Your task to perform on an android device: see sites visited before in the chrome app Image 0: 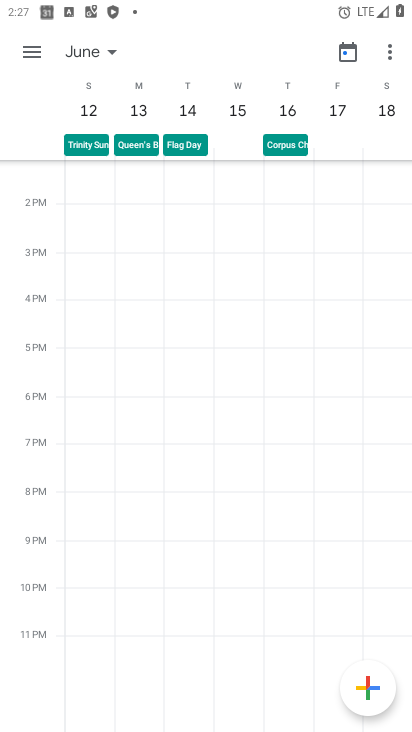
Step 0: press home button
Your task to perform on an android device: see sites visited before in the chrome app Image 1: 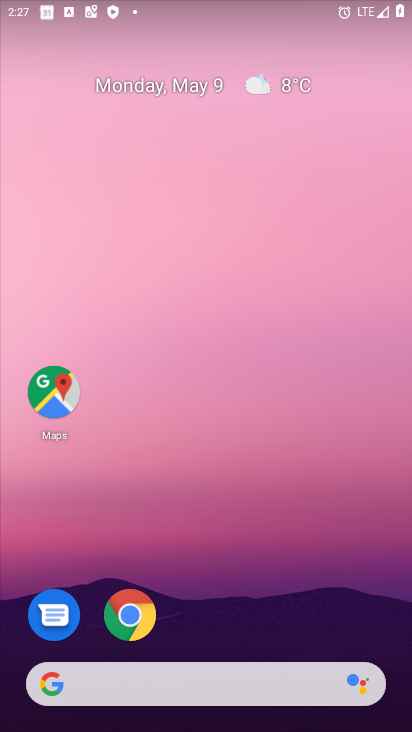
Step 1: click (126, 616)
Your task to perform on an android device: see sites visited before in the chrome app Image 2: 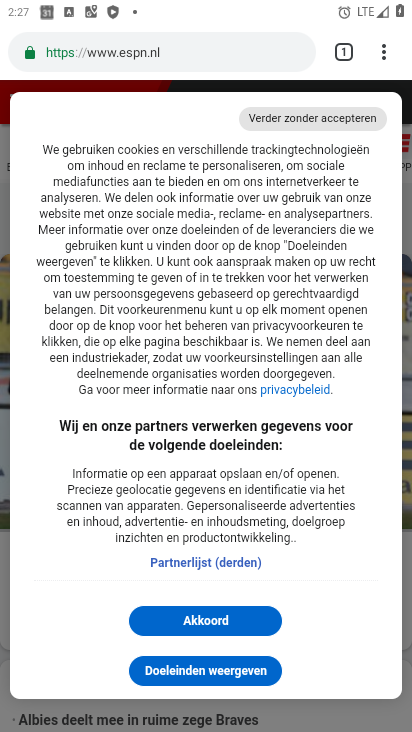
Step 2: click (380, 55)
Your task to perform on an android device: see sites visited before in the chrome app Image 3: 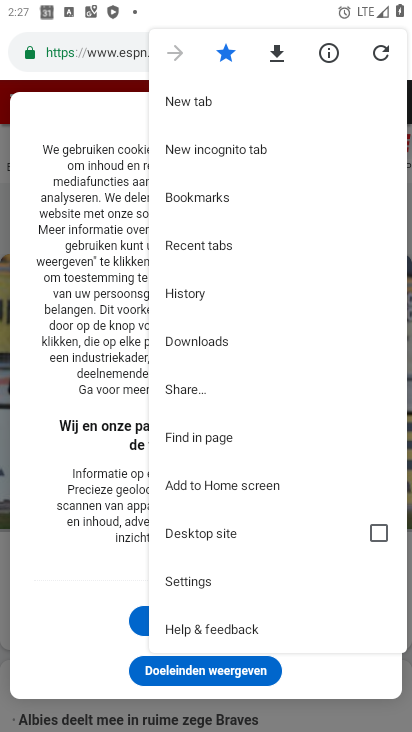
Step 3: click (187, 292)
Your task to perform on an android device: see sites visited before in the chrome app Image 4: 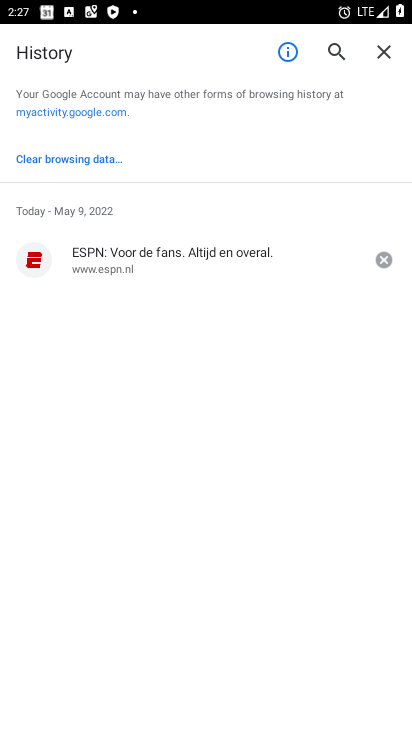
Step 4: task complete